Your task to perform on an android device: Go to sound settings Image 0: 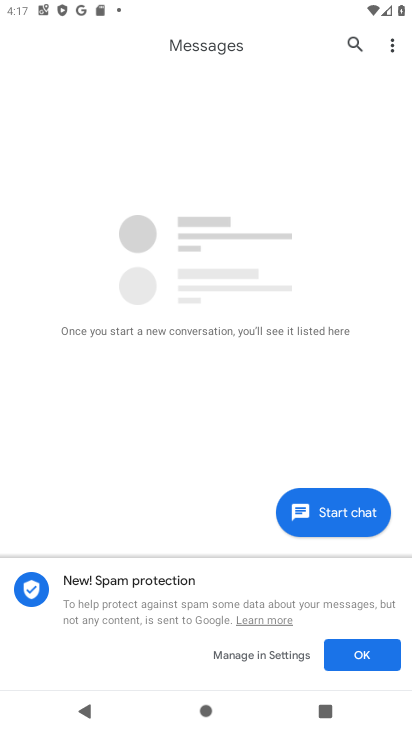
Step 0: press home button
Your task to perform on an android device: Go to sound settings Image 1: 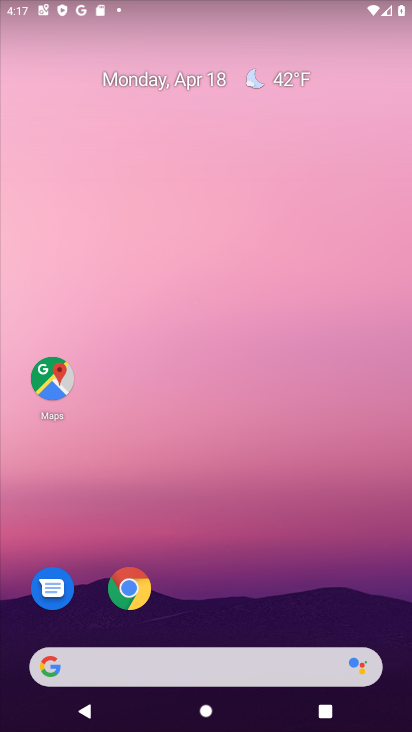
Step 1: drag from (224, 521) to (185, 27)
Your task to perform on an android device: Go to sound settings Image 2: 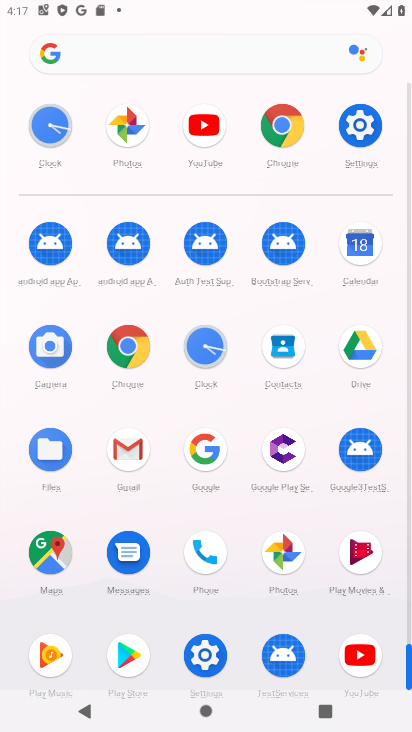
Step 2: click (373, 136)
Your task to perform on an android device: Go to sound settings Image 3: 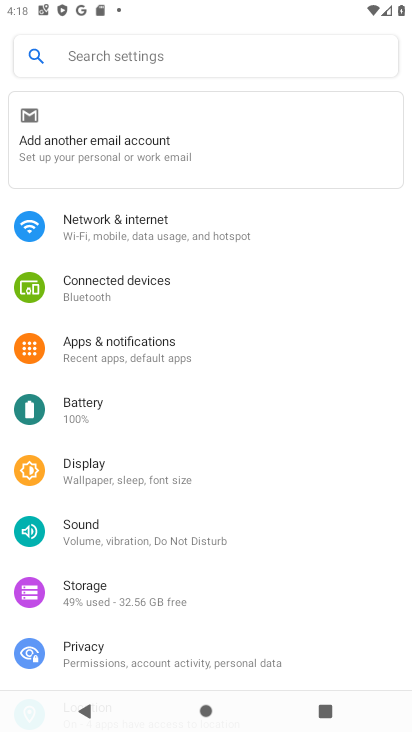
Step 3: click (105, 539)
Your task to perform on an android device: Go to sound settings Image 4: 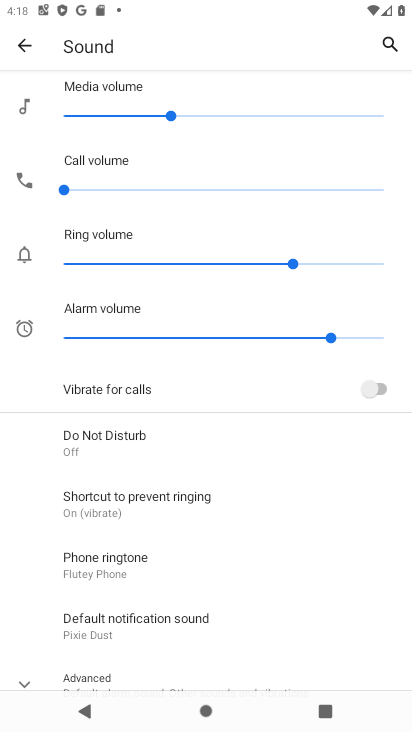
Step 4: task complete